Your task to perform on an android device: delete the emails in spam in the gmail app Image 0: 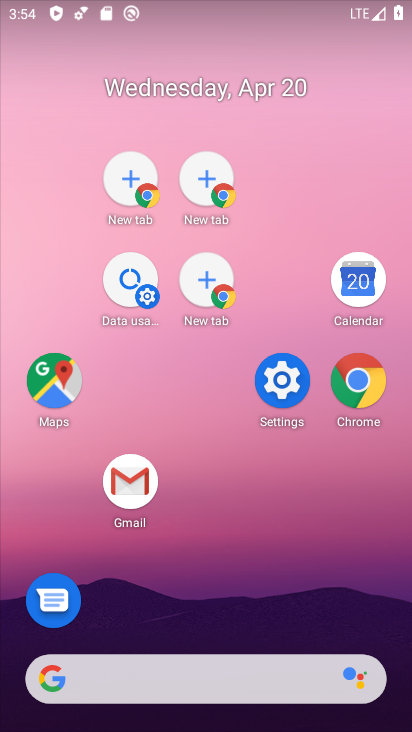
Step 0: click (62, 107)
Your task to perform on an android device: delete the emails in spam in the gmail app Image 1: 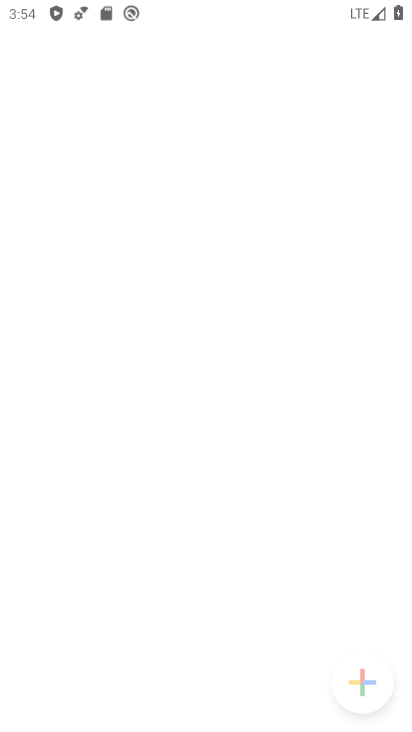
Step 1: drag from (273, 614) to (89, 122)
Your task to perform on an android device: delete the emails in spam in the gmail app Image 2: 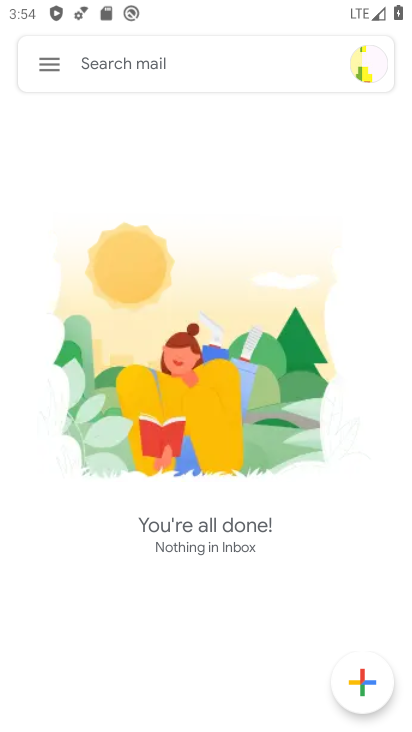
Step 2: click (51, 64)
Your task to perform on an android device: delete the emails in spam in the gmail app Image 3: 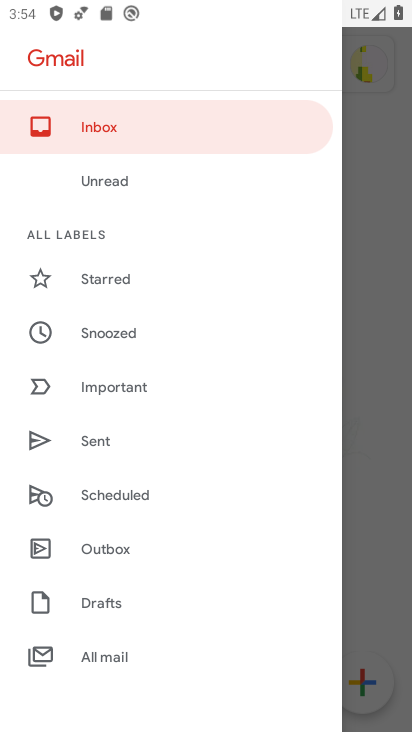
Step 3: drag from (100, 271) to (100, 87)
Your task to perform on an android device: delete the emails in spam in the gmail app Image 4: 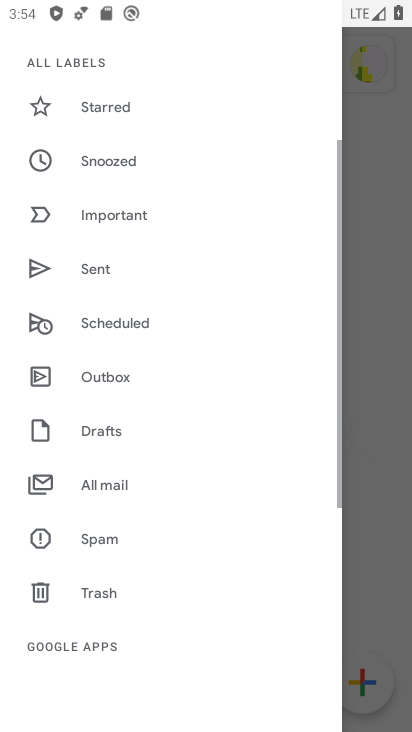
Step 4: drag from (211, 574) to (144, 296)
Your task to perform on an android device: delete the emails in spam in the gmail app Image 5: 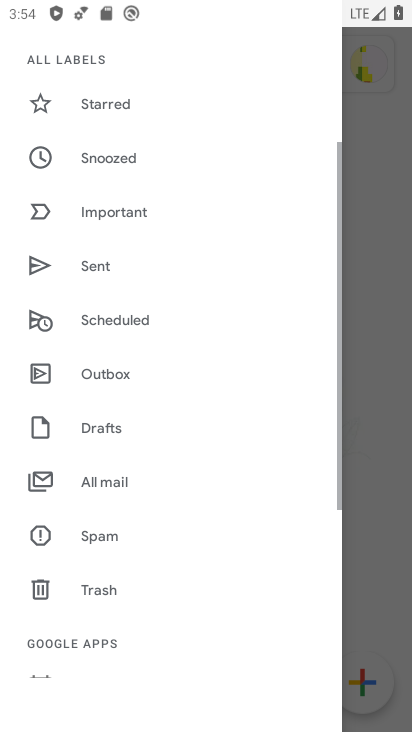
Step 5: click (105, 542)
Your task to perform on an android device: delete the emails in spam in the gmail app Image 6: 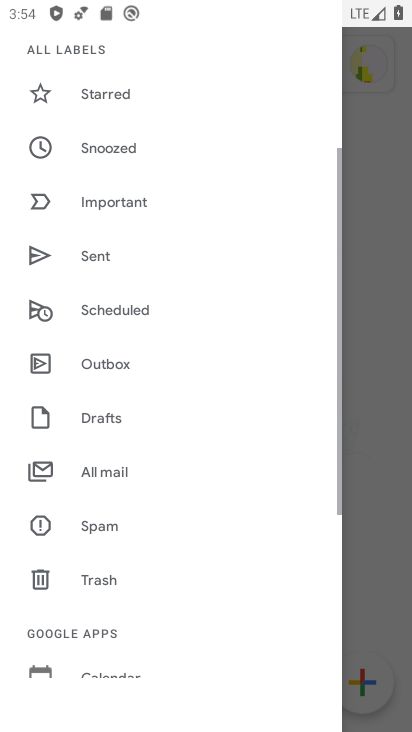
Step 6: click (100, 535)
Your task to perform on an android device: delete the emails in spam in the gmail app Image 7: 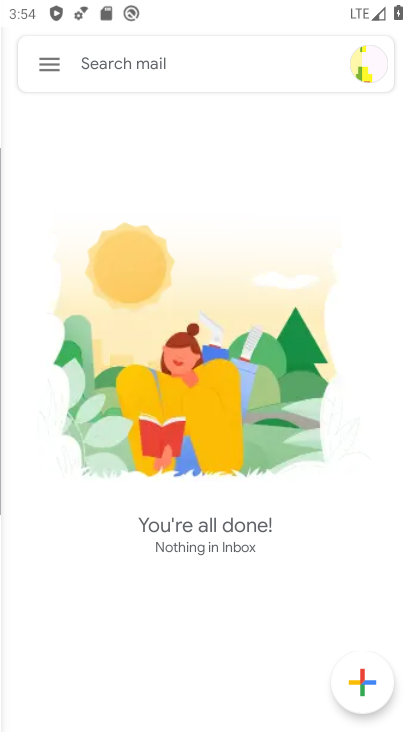
Step 7: click (95, 514)
Your task to perform on an android device: delete the emails in spam in the gmail app Image 8: 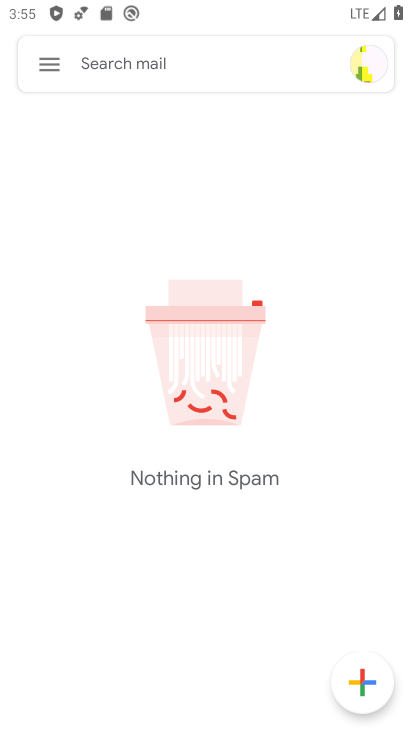
Step 8: task complete